Your task to perform on an android device: Open eBay Image 0: 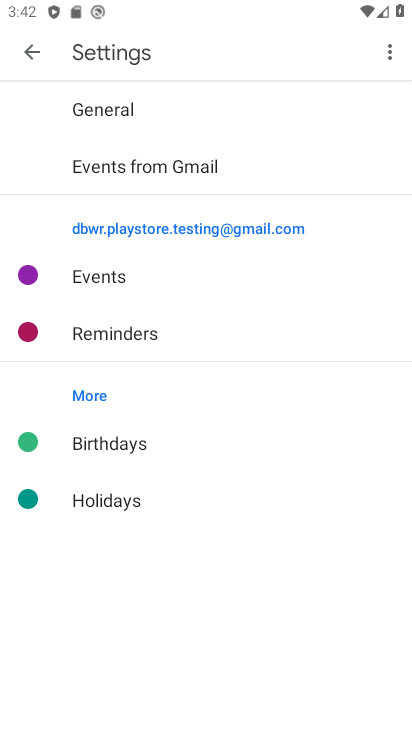
Step 0: press home button
Your task to perform on an android device: Open eBay Image 1: 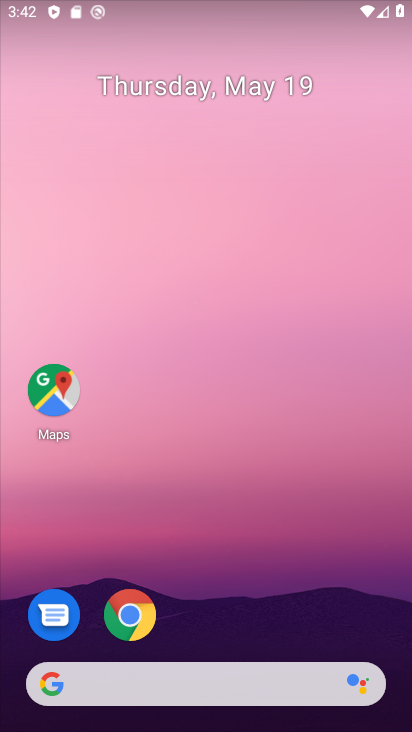
Step 1: click (136, 619)
Your task to perform on an android device: Open eBay Image 2: 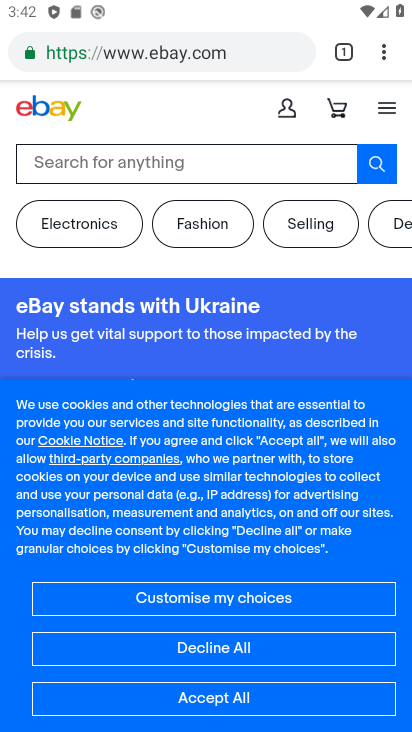
Step 2: task complete